Your task to perform on an android device: empty trash in the gmail app Image 0: 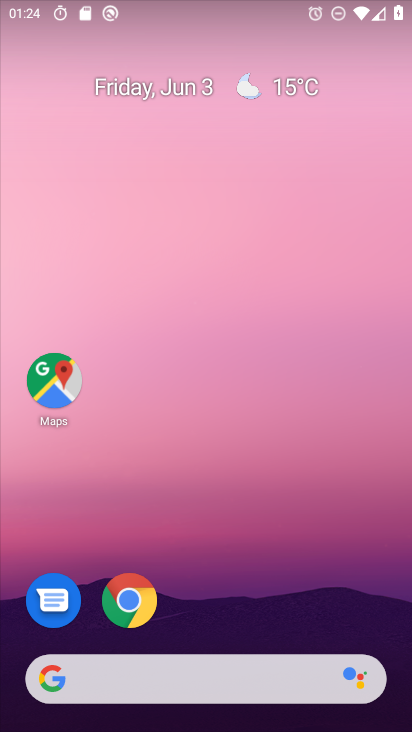
Step 0: drag from (217, 610) to (180, 124)
Your task to perform on an android device: empty trash in the gmail app Image 1: 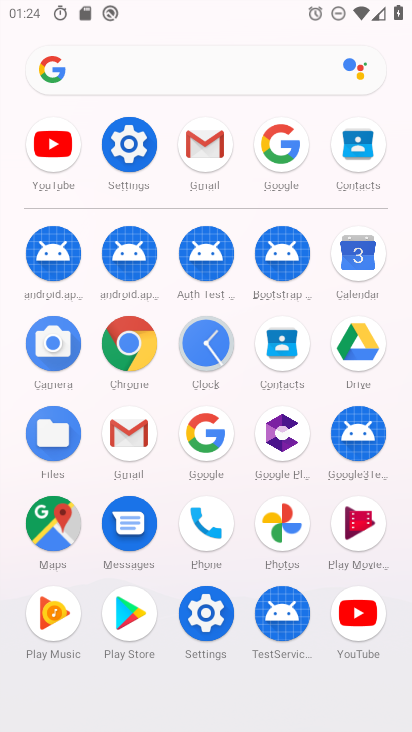
Step 1: click (133, 432)
Your task to perform on an android device: empty trash in the gmail app Image 2: 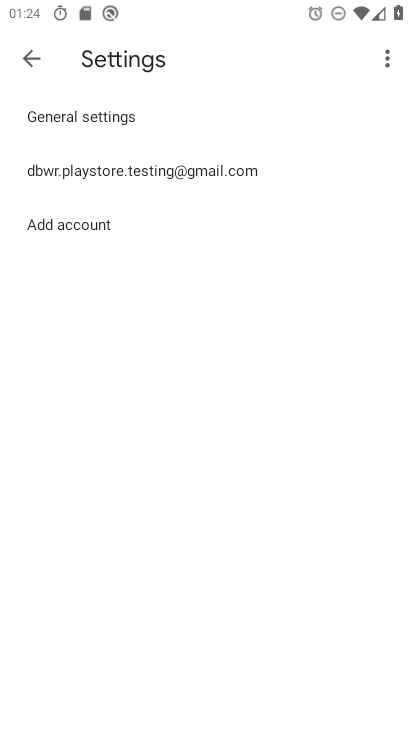
Step 2: press back button
Your task to perform on an android device: empty trash in the gmail app Image 3: 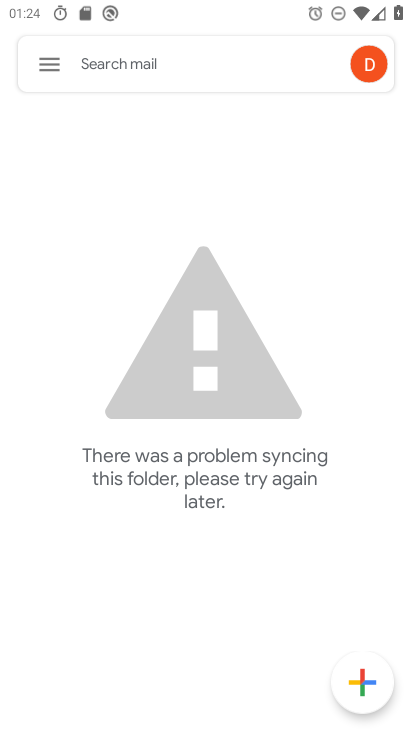
Step 3: click (47, 52)
Your task to perform on an android device: empty trash in the gmail app Image 4: 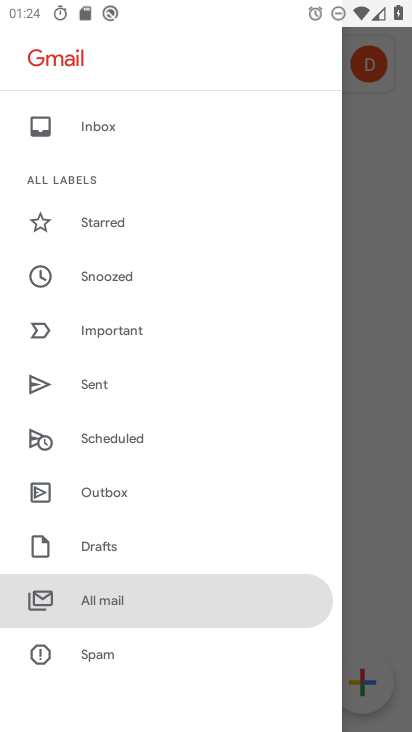
Step 4: drag from (163, 558) to (198, 136)
Your task to perform on an android device: empty trash in the gmail app Image 5: 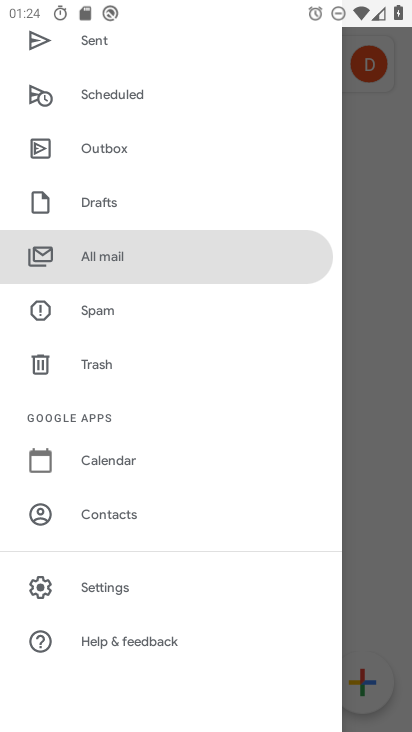
Step 5: click (116, 363)
Your task to perform on an android device: empty trash in the gmail app Image 6: 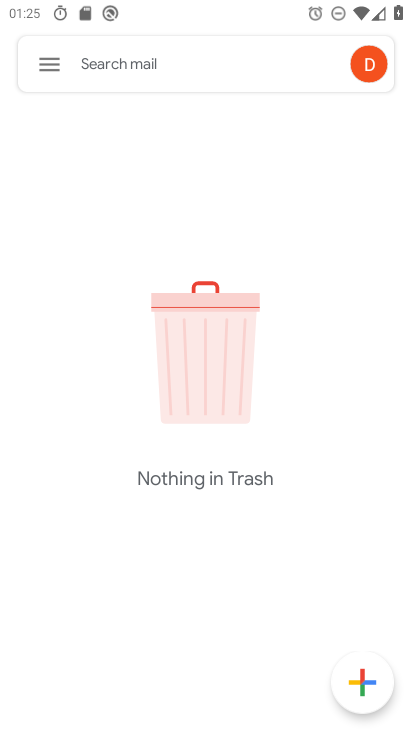
Step 6: task complete